Your task to perform on an android device: Open calendar and show me the third week of next month Image 0: 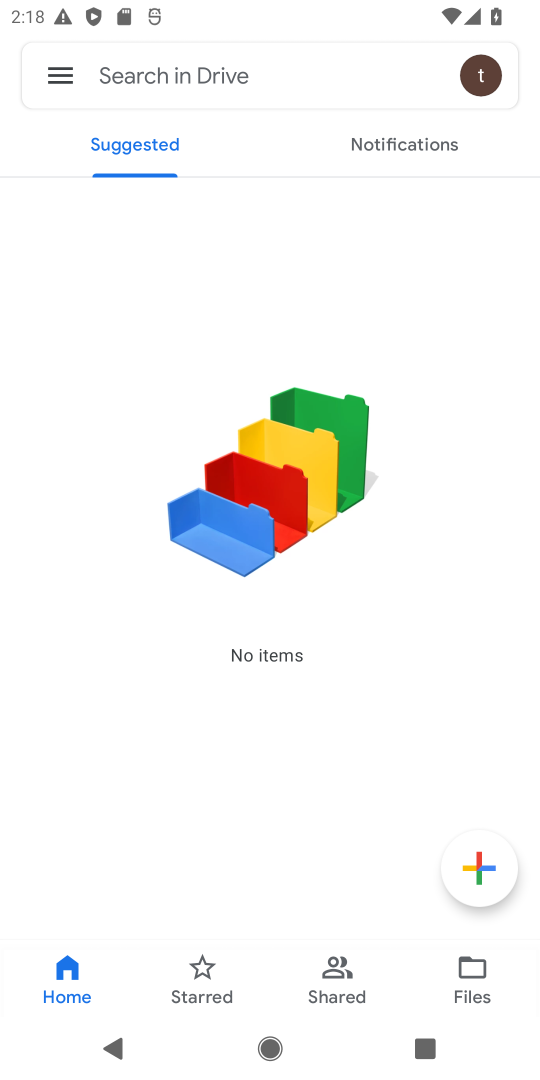
Step 0: press home button
Your task to perform on an android device: Open calendar and show me the third week of next month Image 1: 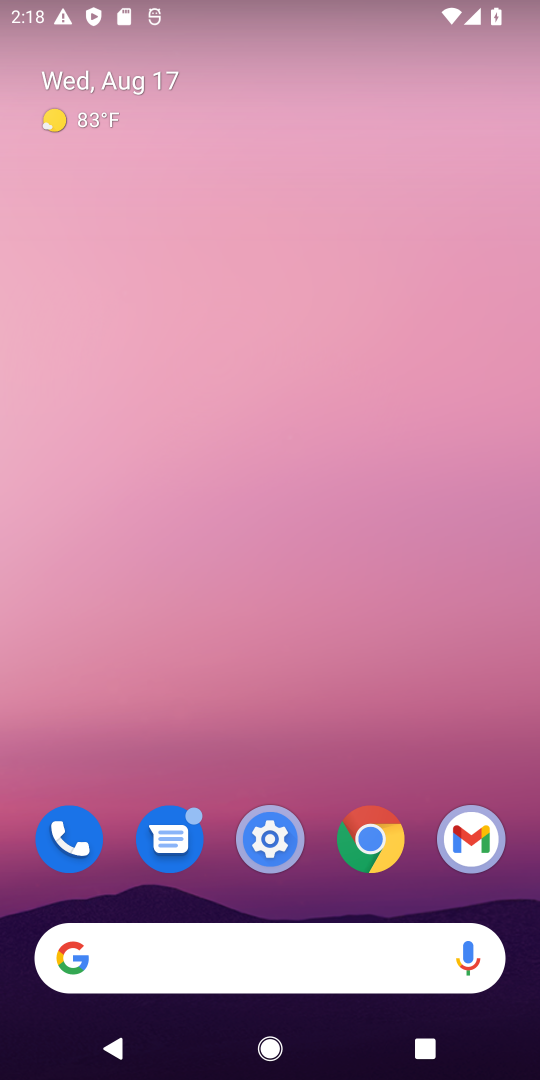
Step 1: drag from (315, 874) to (249, 12)
Your task to perform on an android device: Open calendar and show me the third week of next month Image 2: 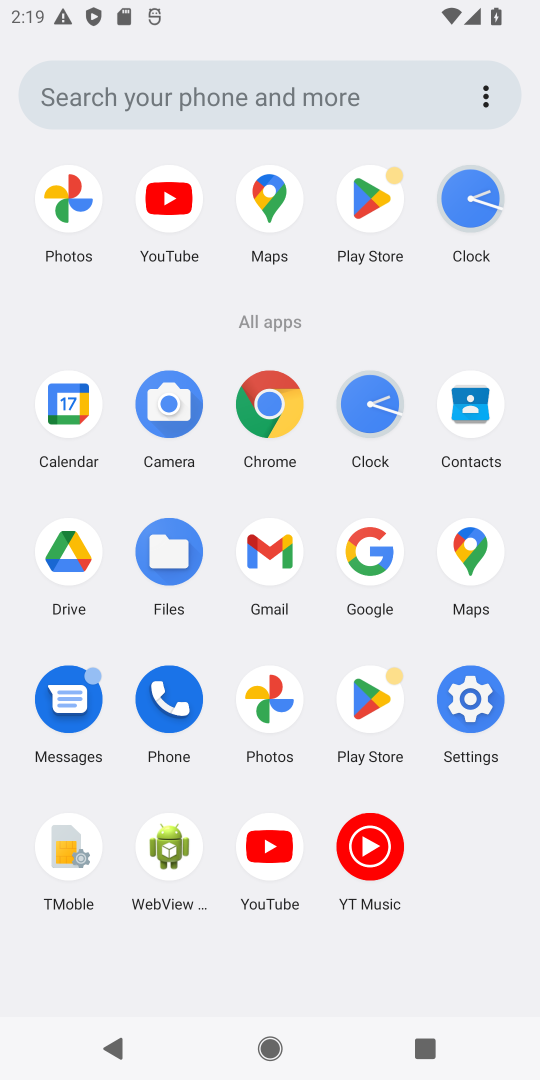
Step 2: click (66, 410)
Your task to perform on an android device: Open calendar and show me the third week of next month Image 3: 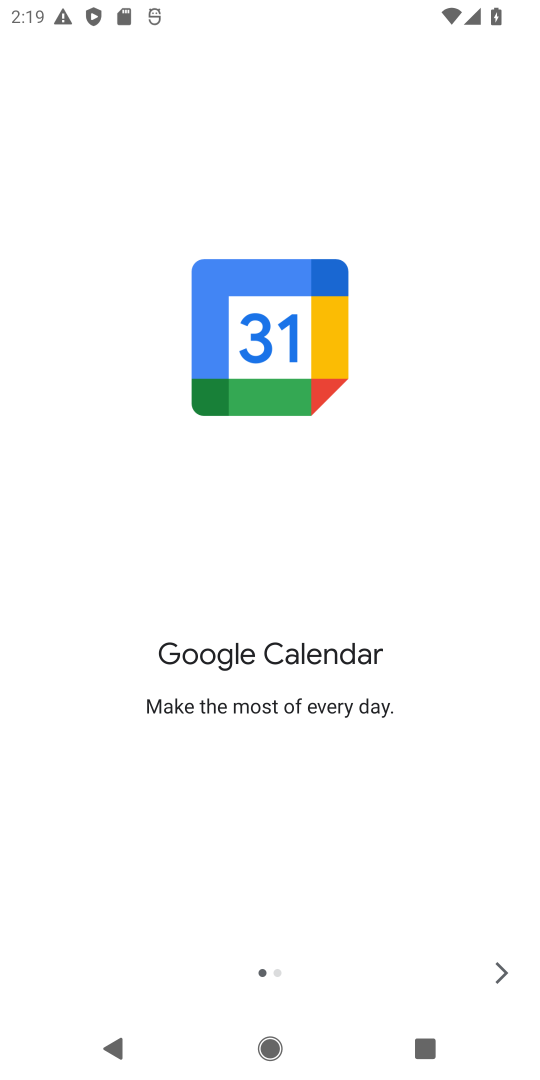
Step 3: click (493, 967)
Your task to perform on an android device: Open calendar and show me the third week of next month Image 4: 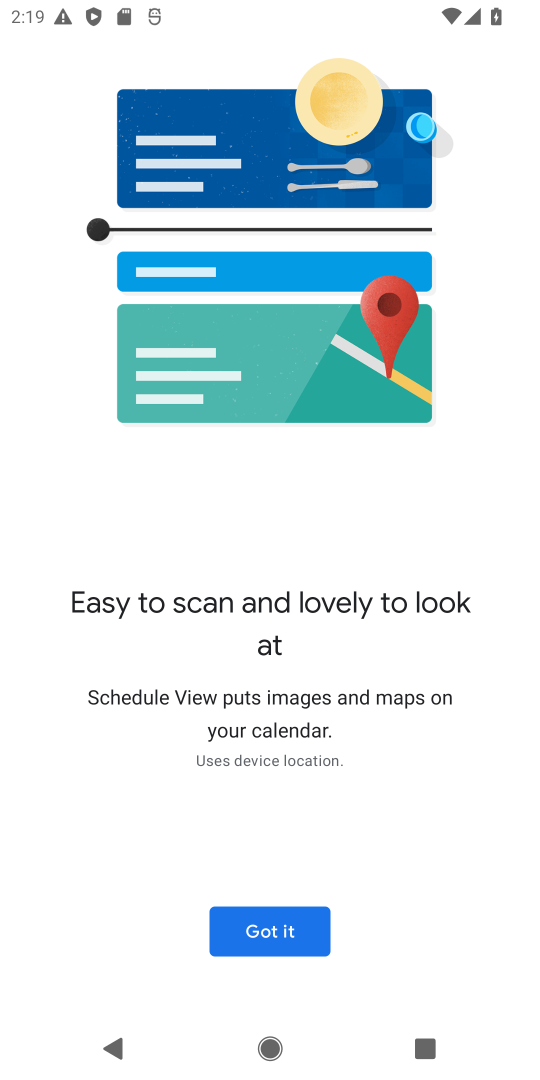
Step 4: click (273, 935)
Your task to perform on an android device: Open calendar and show me the third week of next month Image 5: 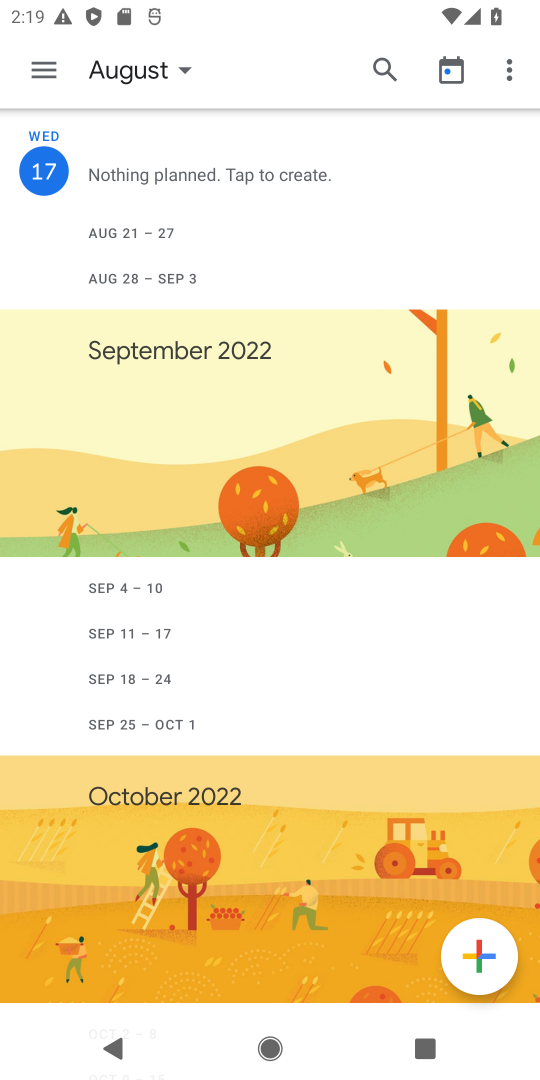
Step 5: click (183, 63)
Your task to perform on an android device: Open calendar and show me the third week of next month Image 6: 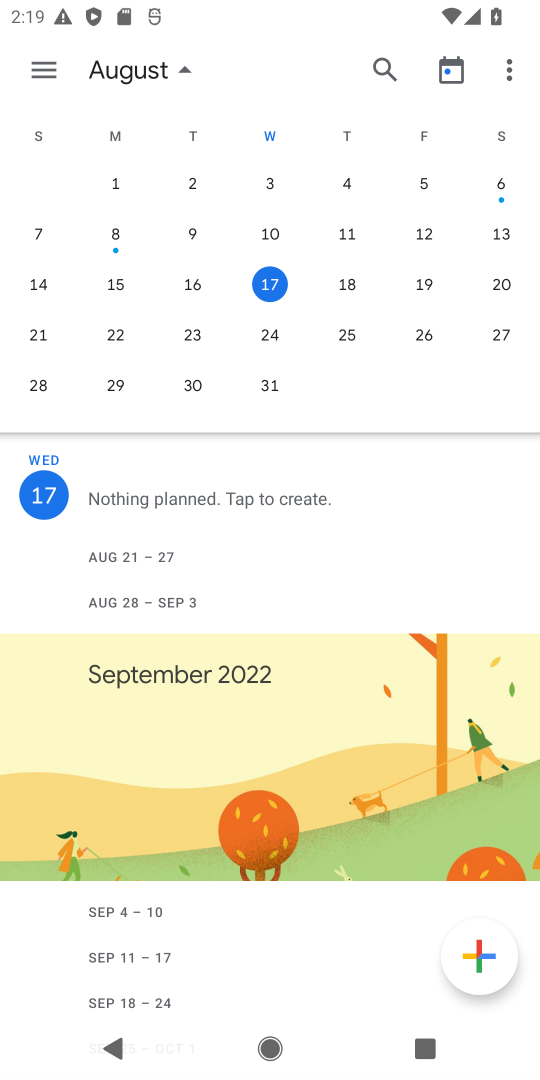
Step 6: drag from (505, 288) to (7, 268)
Your task to perform on an android device: Open calendar and show me the third week of next month Image 7: 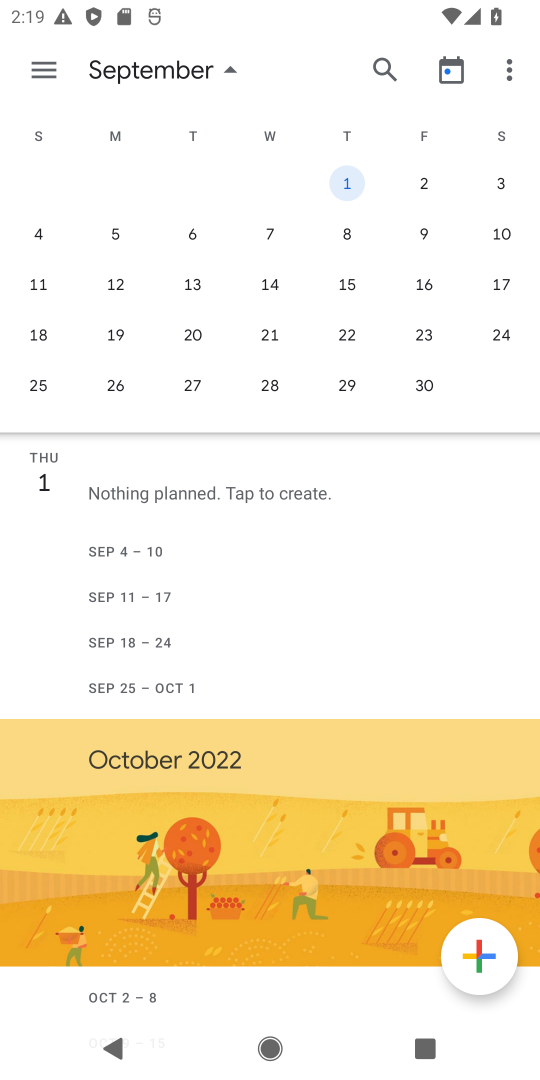
Step 7: click (113, 335)
Your task to perform on an android device: Open calendar and show me the third week of next month Image 8: 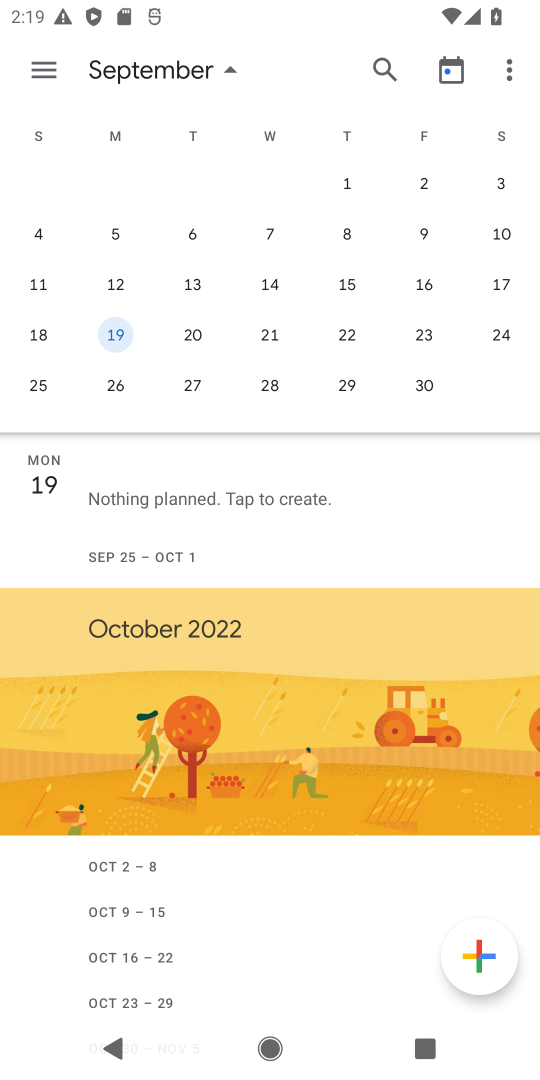
Step 8: click (112, 330)
Your task to perform on an android device: Open calendar and show me the third week of next month Image 9: 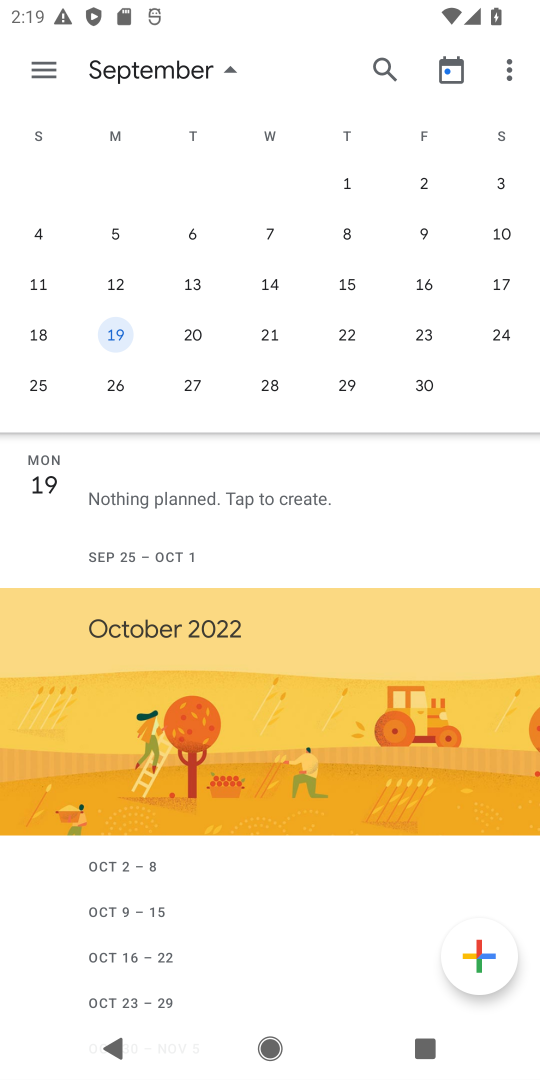
Step 9: click (43, 69)
Your task to perform on an android device: Open calendar and show me the third week of next month Image 10: 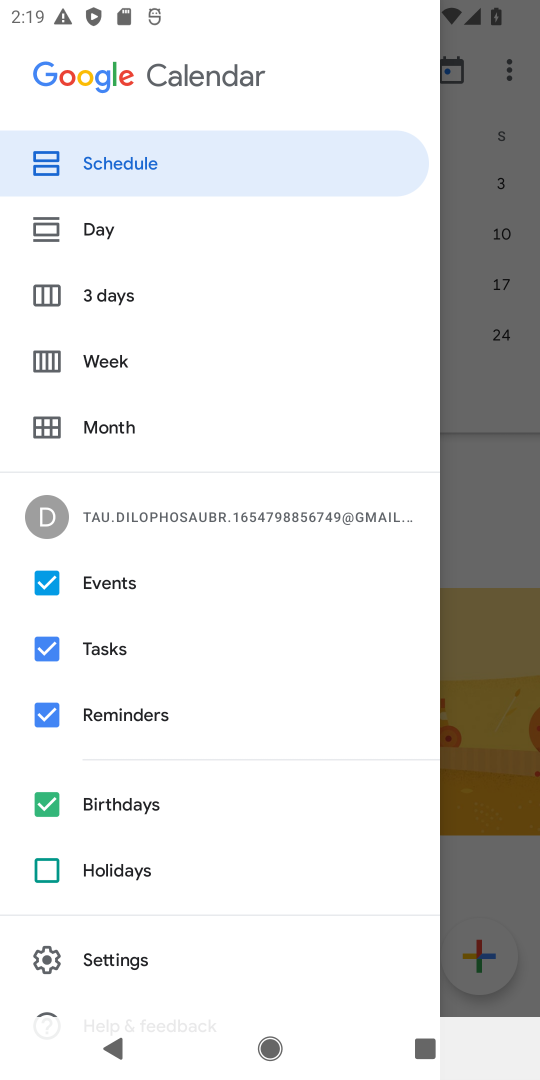
Step 10: click (117, 359)
Your task to perform on an android device: Open calendar and show me the third week of next month Image 11: 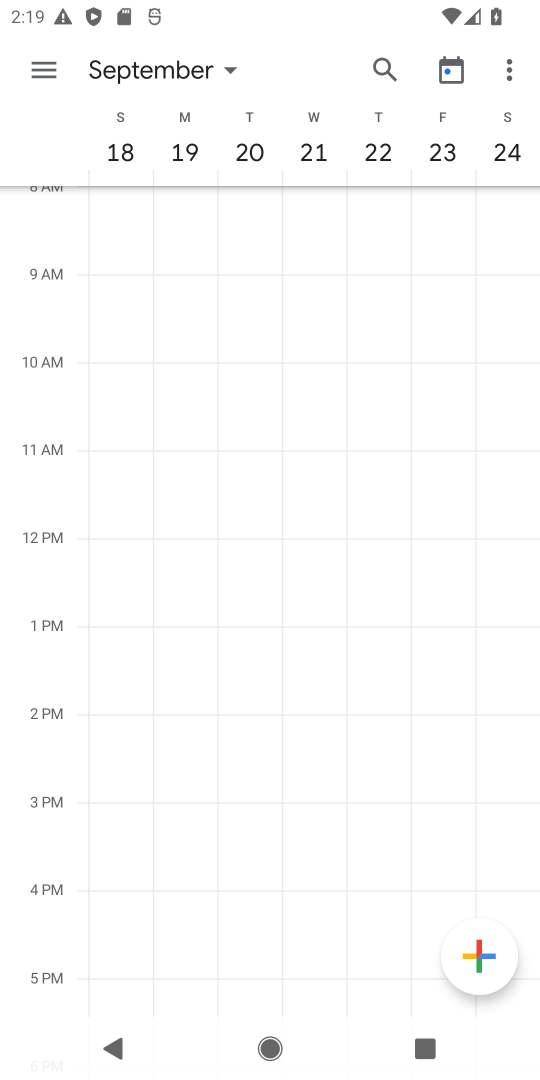
Step 11: task complete